Your task to perform on an android device: Open the web browser Image 0: 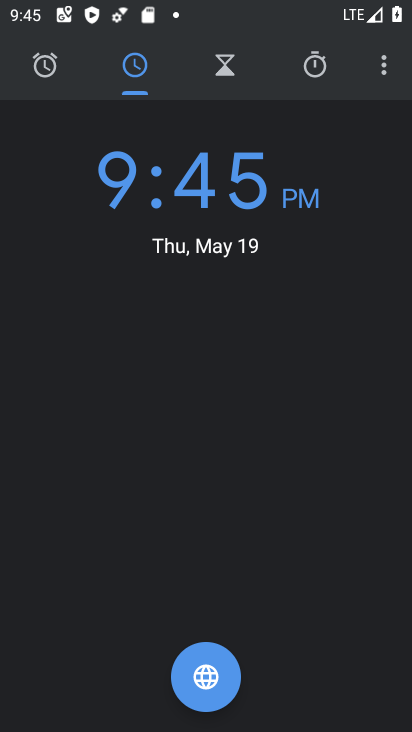
Step 0: press home button
Your task to perform on an android device: Open the web browser Image 1: 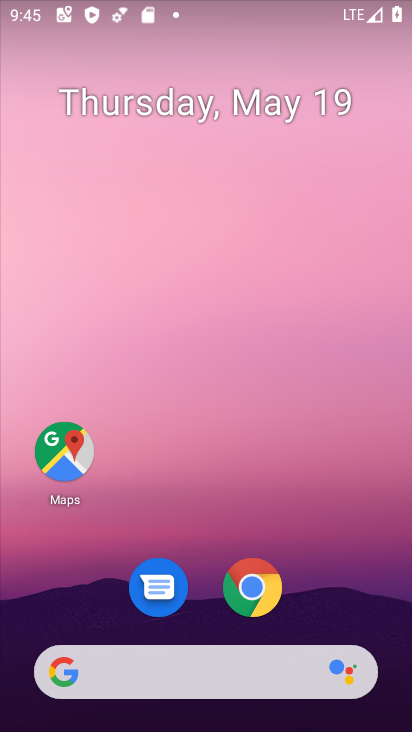
Step 1: click (265, 660)
Your task to perform on an android device: Open the web browser Image 2: 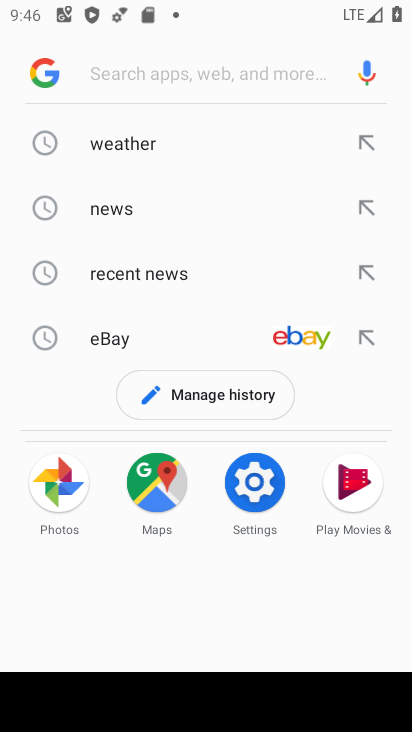
Step 2: task complete